Your task to perform on an android device: Open the web browser Image 0: 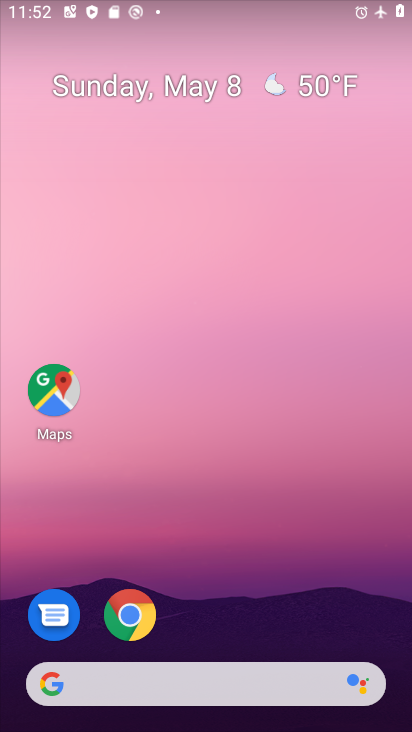
Step 0: drag from (343, 716) to (265, 348)
Your task to perform on an android device: Open the web browser Image 1: 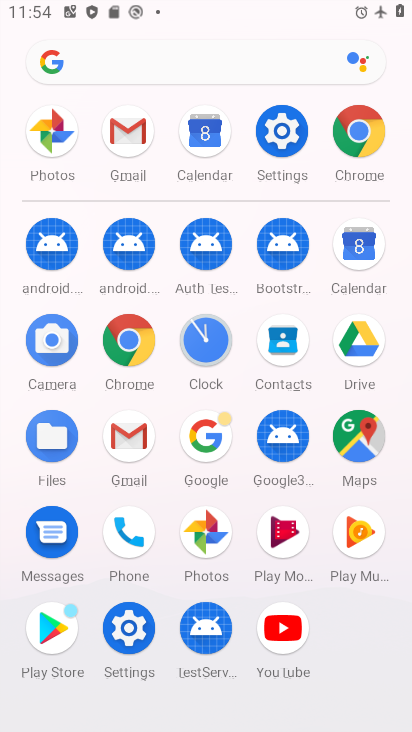
Step 1: click (326, 143)
Your task to perform on an android device: Open the web browser Image 2: 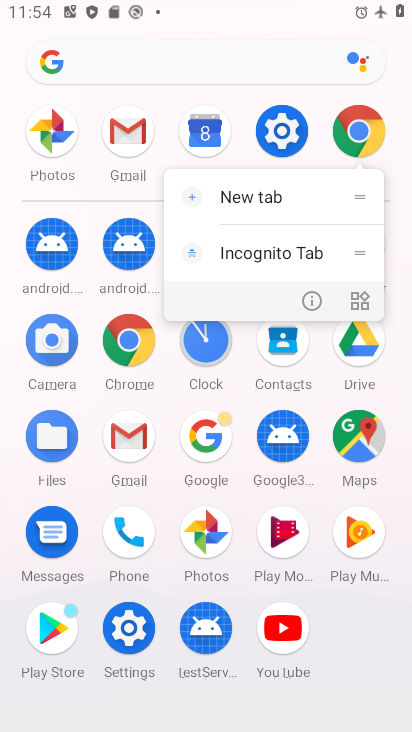
Step 2: click (353, 138)
Your task to perform on an android device: Open the web browser Image 3: 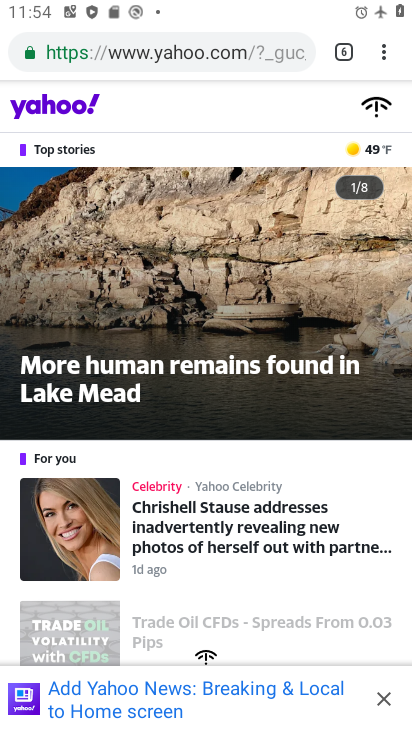
Step 3: click (374, 57)
Your task to perform on an android device: Open the web browser Image 4: 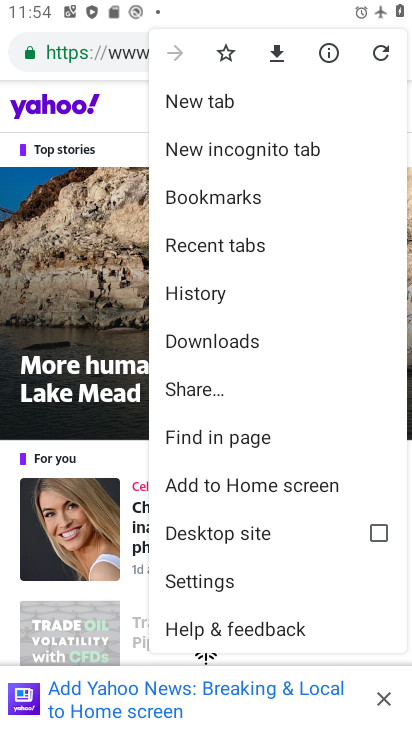
Step 4: click (111, 69)
Your task to perform on an android device: Open the web browser Image 5: 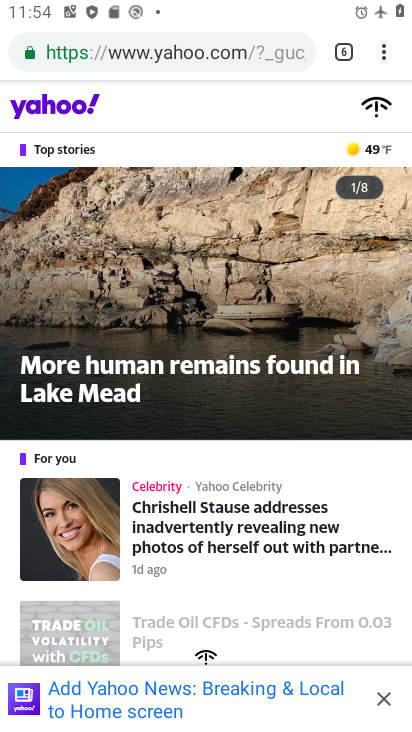
Step 5: click (129, 64)
Your task to perform on an android device: Open the web browser Image 6: 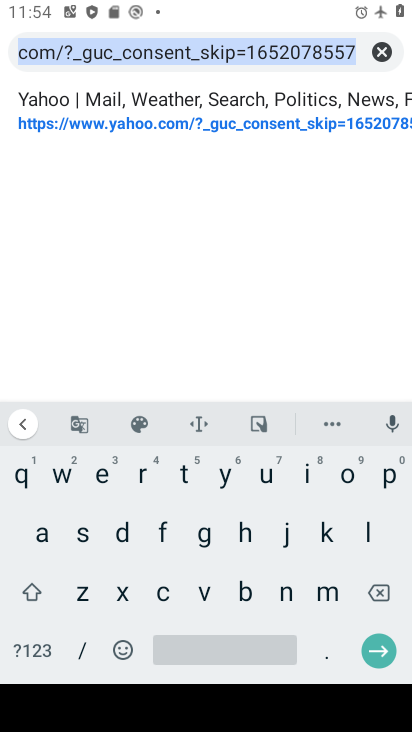
Step 6: click (386, 51)
Your task to perform on an android device: Open the web browser Image 7: 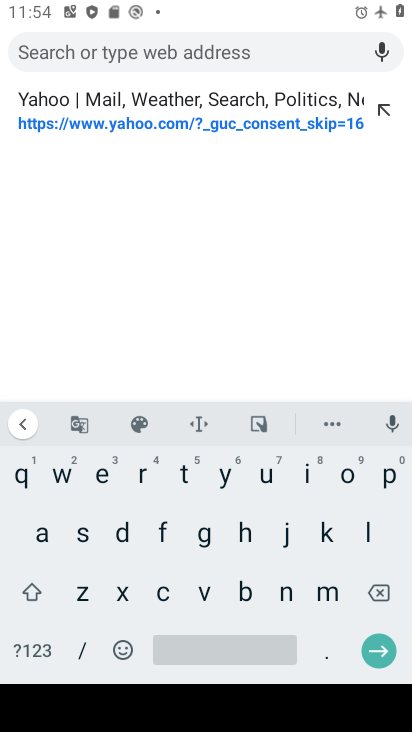
Step 7: task complete